Your task to perform on an android device: refresh tabs in the chrome app Image 0: 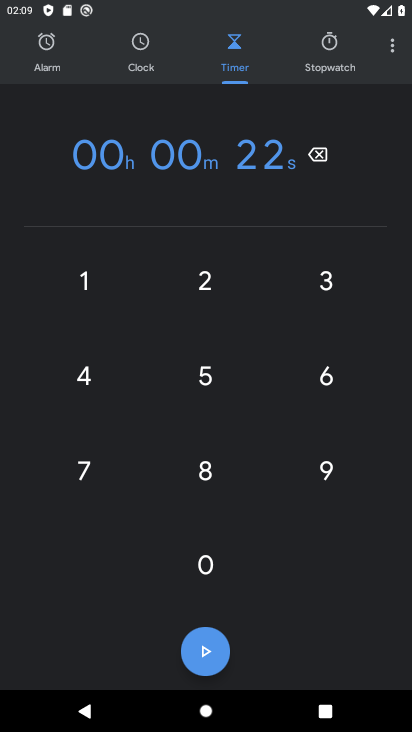
Step 0: press home button
Your task to perform on an android device: refresh tabs in the chrome app Image 1: 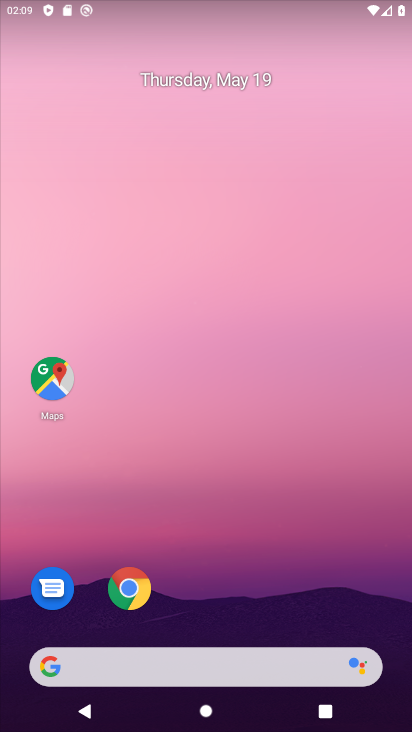
Step 1: click (129, 584)
Your task to perform on an android device: refresh tabs in the chrome app Image 2: 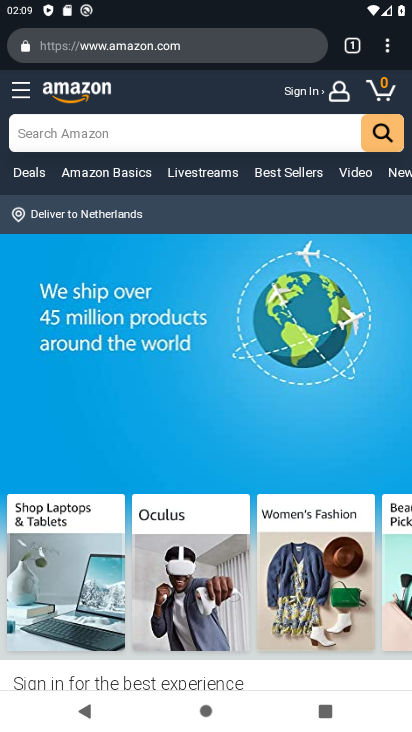
Step 2: click (381, 50)
Your task to perform on an android device: refresh tabs in the chrome app Image 3: 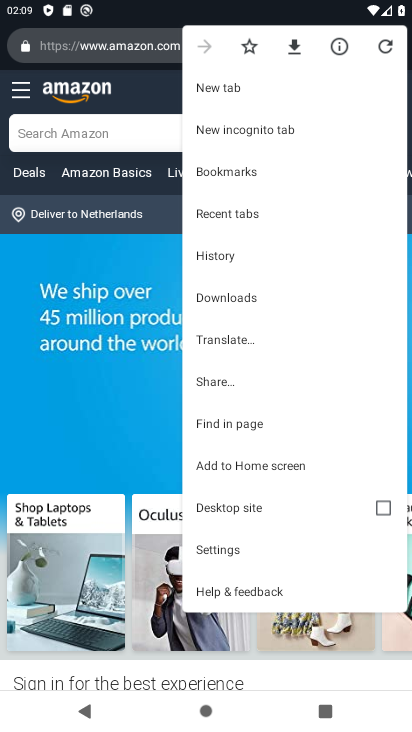
Step 3: click (384, 51)
Your task to perform on an android device: refresh tabs in the chrome app Image 4: 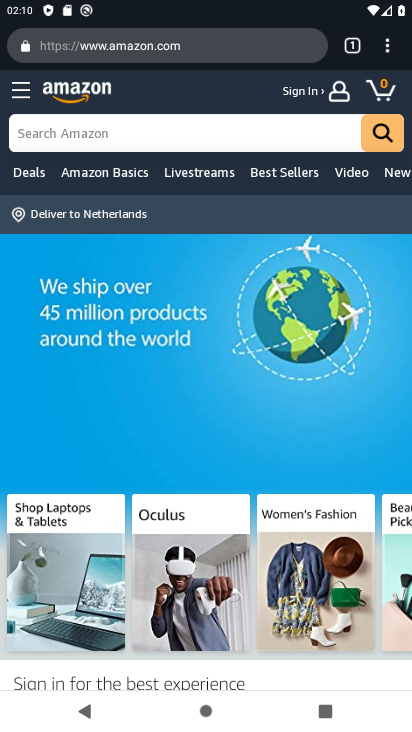
Step 4: task complete